Your task to perform on an android device: stop showing notifications on the lock screen Image 0: 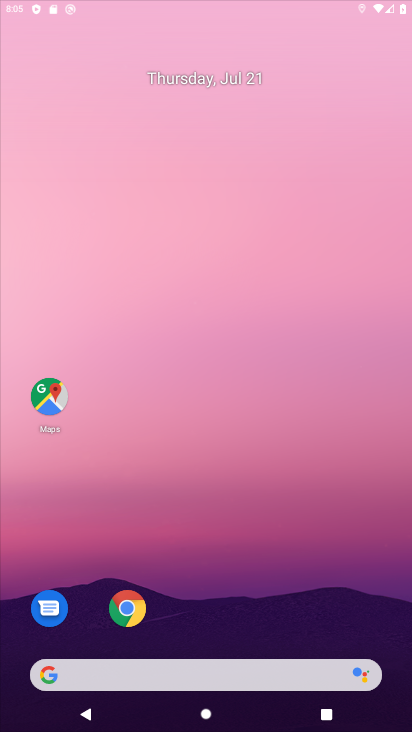
Step 0: click (134, 656)
Your task to perform on an android device: stop showing notifications on the lock screen Image 1: 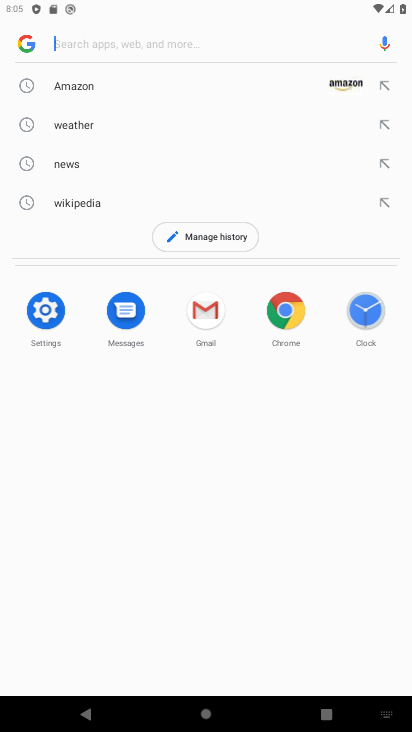
Step 1: press home button
Your task to perform on an android device: stop showing notifications on the lock screen Image 2: 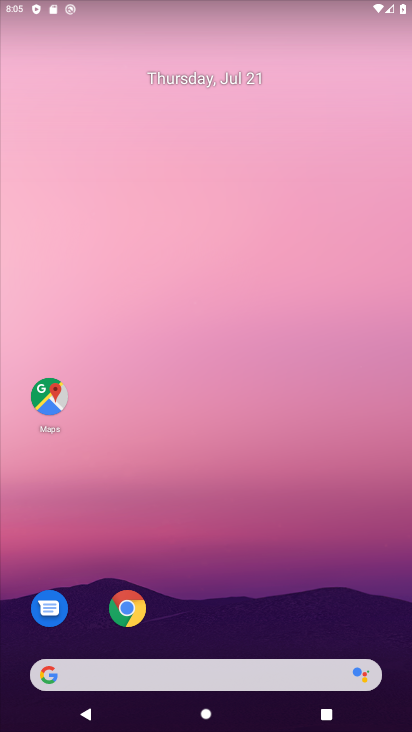
Step 2: drag from (21, 695) to (307, 25)
Your task to perform on an android device: stop showing notifications on the lock screen Image 3: 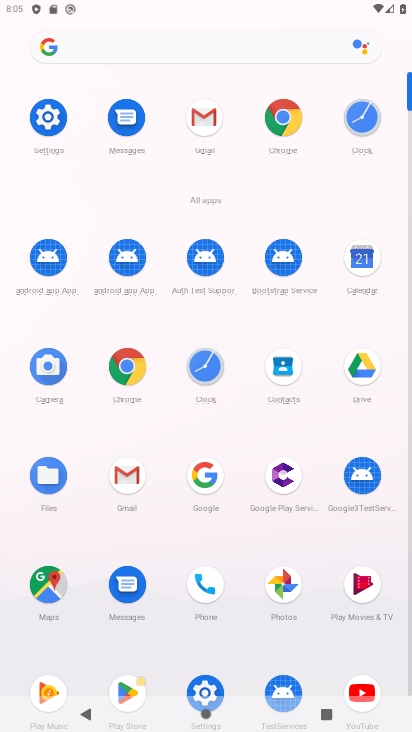
Step 3: click (194, 688)
Your task to perform on an android device: stop showing notifications on the lock screen Image 4: 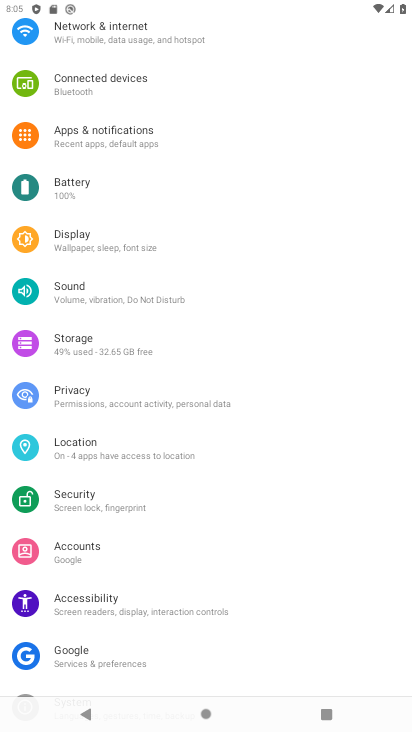
Step 4: click (102, 401)
Your task to perform on an android device: stop showing notifications on the lock screen Image 5: 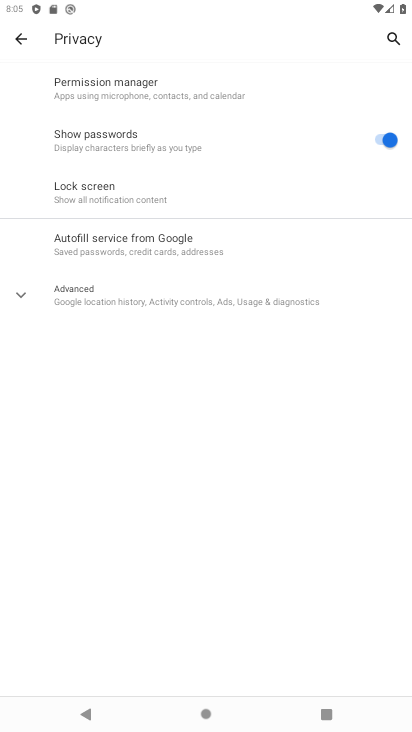
Step 5: click (125, 180)
Your task to perform on an android device: stop showing notifications on the lock screen Image 6: 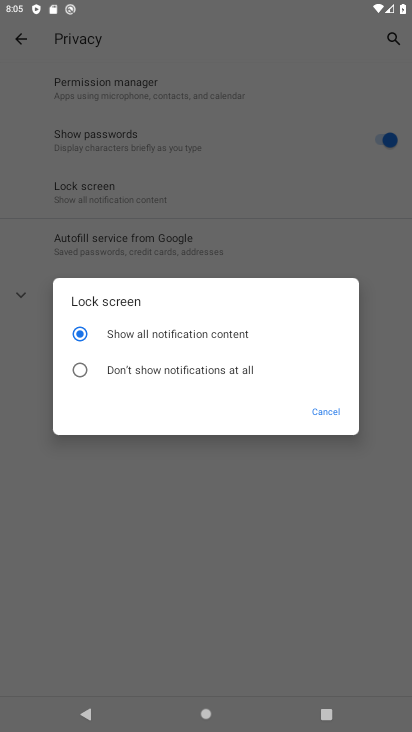
Step 6: click (103, 371)
Your task to perform on an android device: stop showing notifications on the lock screen Image 7: 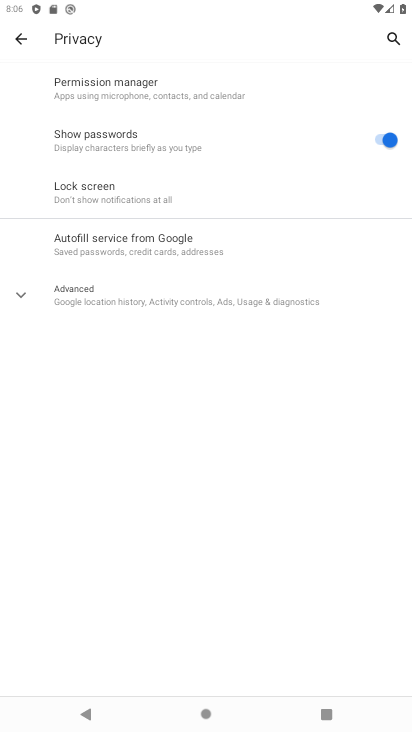
Step 7: task complete